Your task to perform on an android device: Clear the shopping cart on walmart. Image 0: 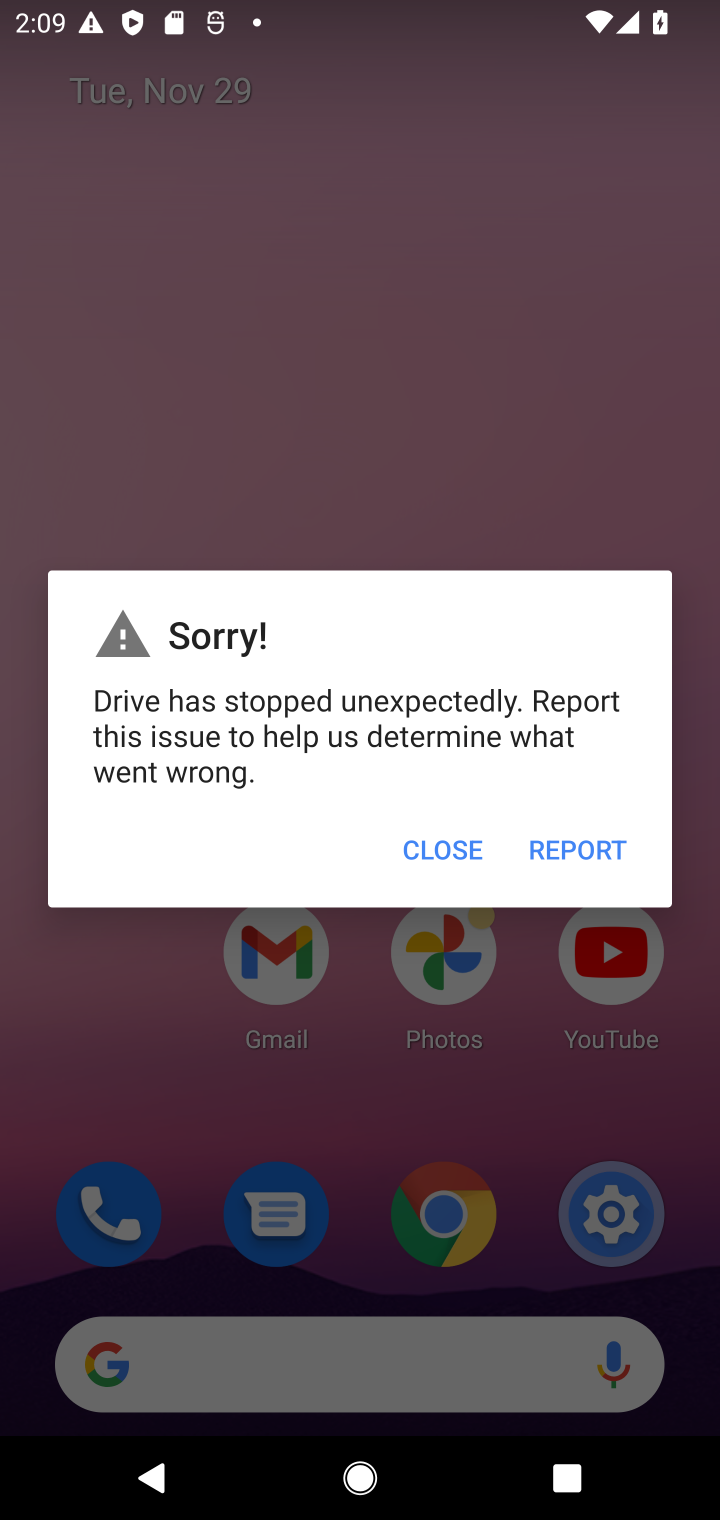
Step 0: click (400, 847)
Your task to perform on an android device: Clear the shopping cart on walmart. Image 1: 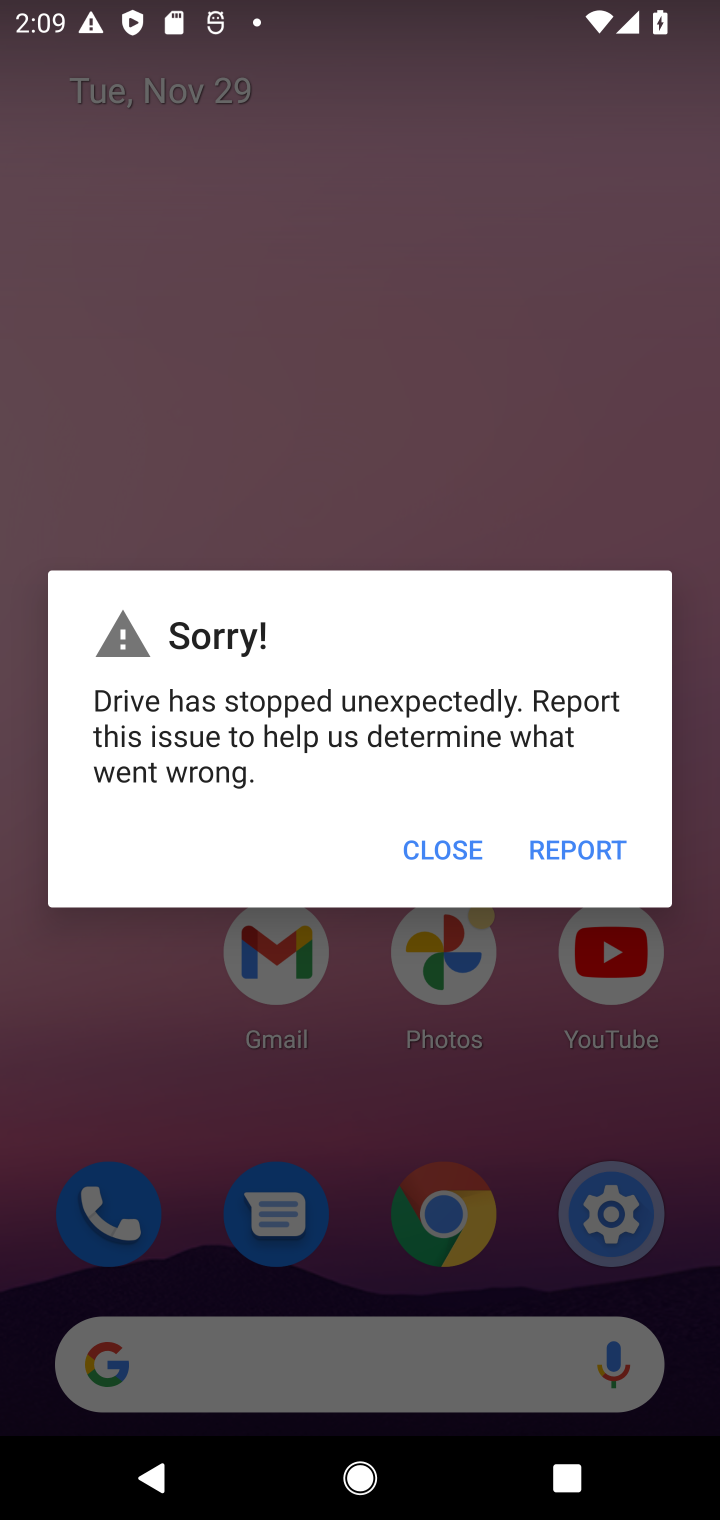
Step 1: click (369, 1378)
Your task to perform on an android device: Clear the shopping cart on walmart. Image 2: 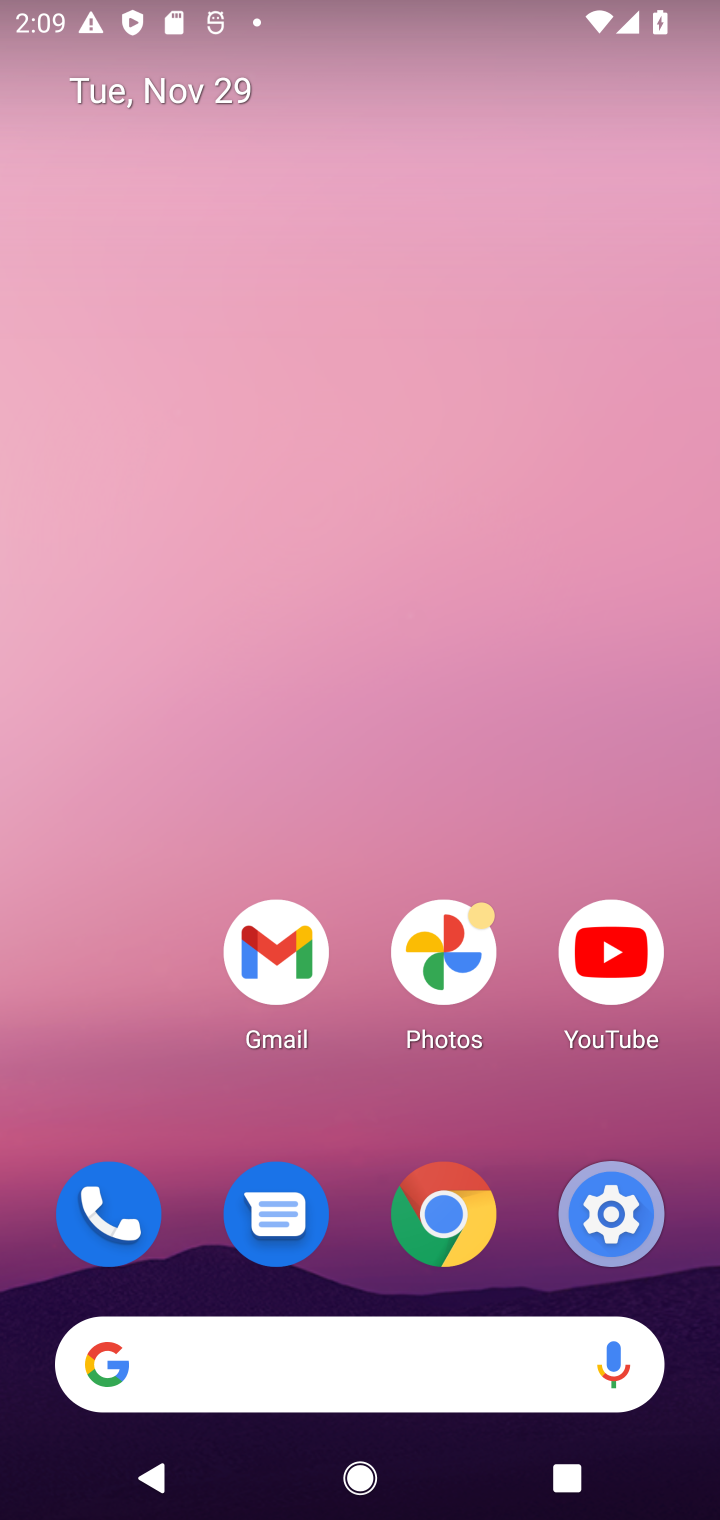
Step 2: type "walmart"
Your task to perform on an android device: Clear the shopping cart on walmart. Image 3: 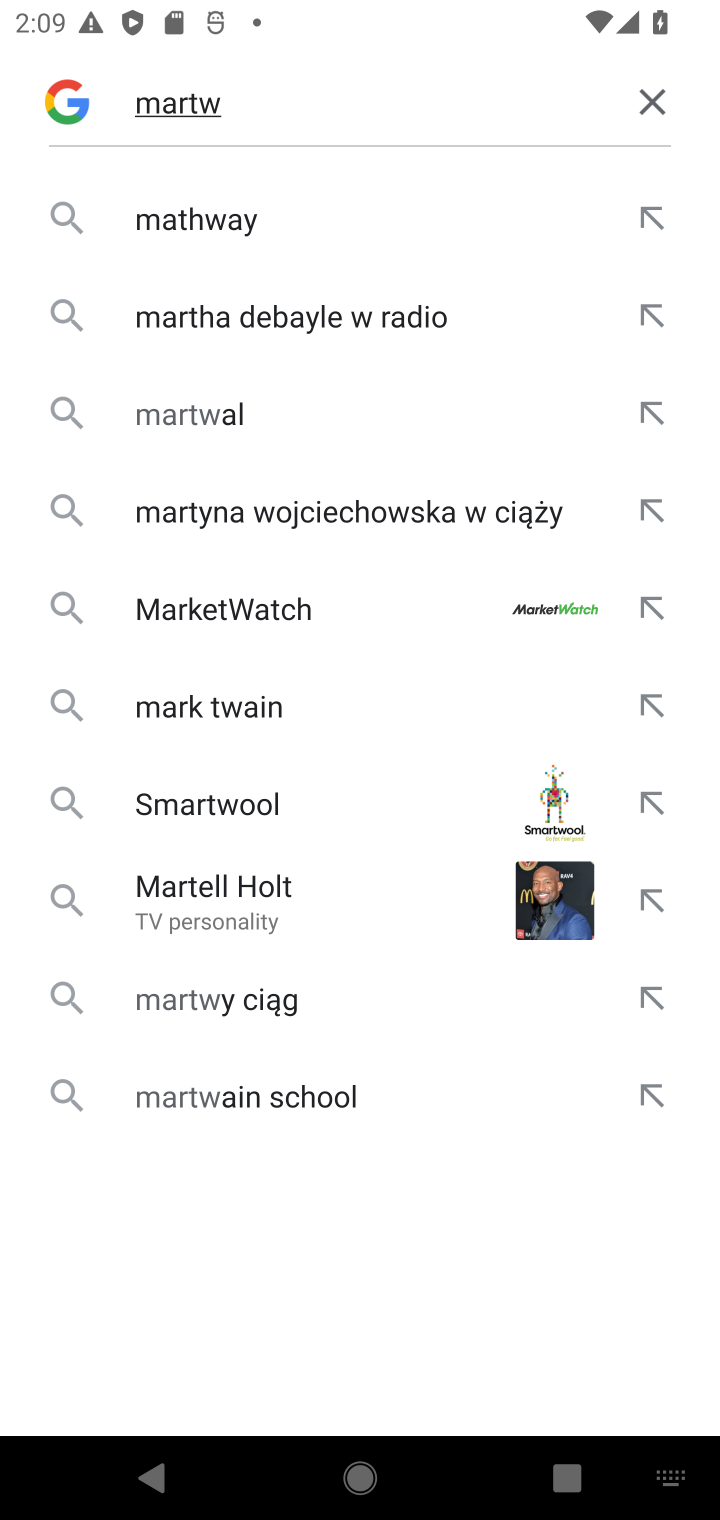
Step 3: click (219, 232)
Your task to perform on an android device: Clear the shopping cart on walmart. Image 4: 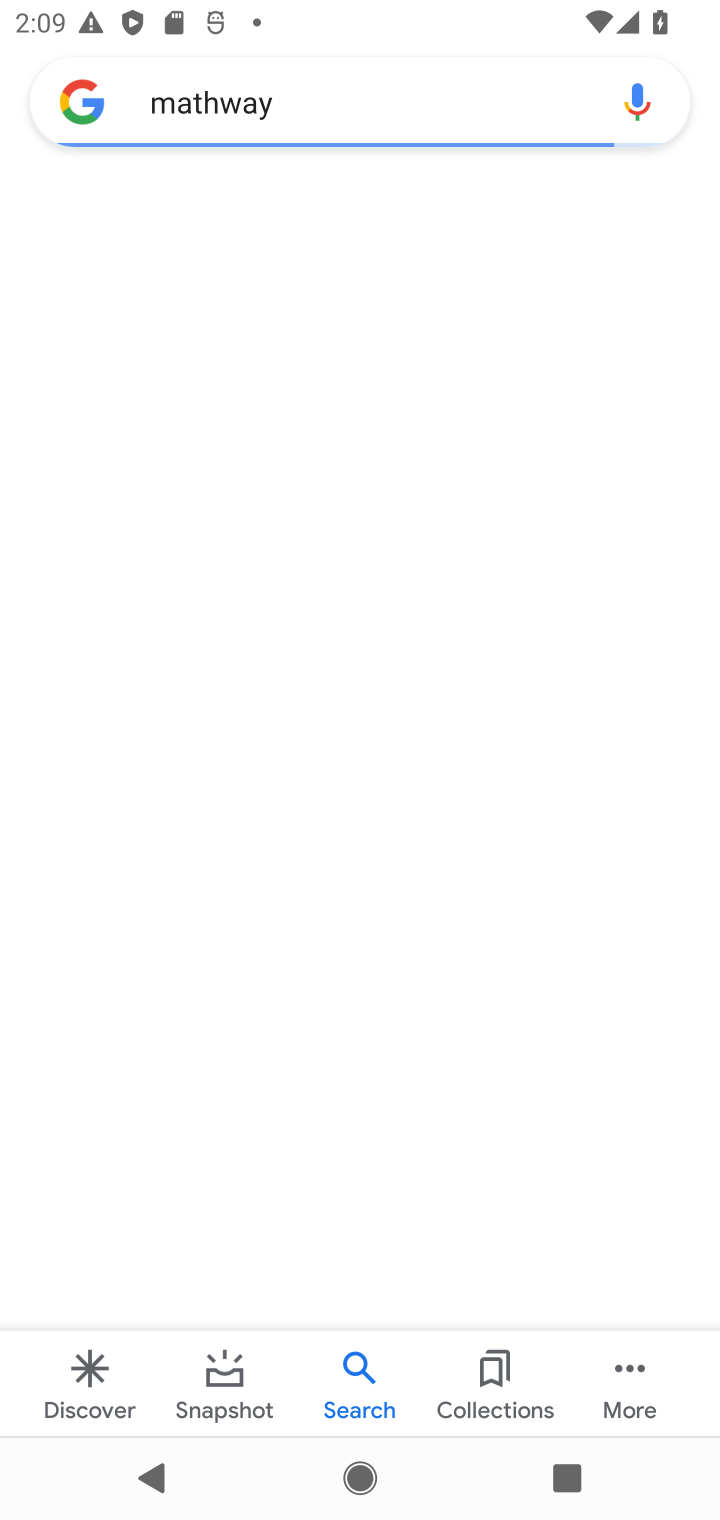
Step 4: task complete